Your task to perform on an android device: add a contact in the contacts app Image 0: 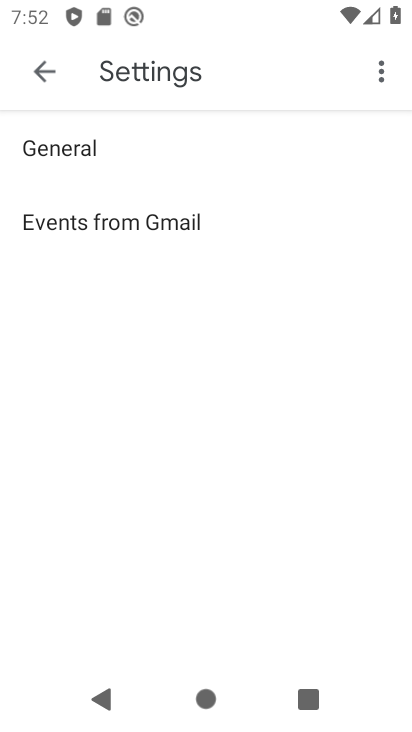
Step 0: press home button
Your task to perform on an android device: add a contact in the contacts app Image 1: 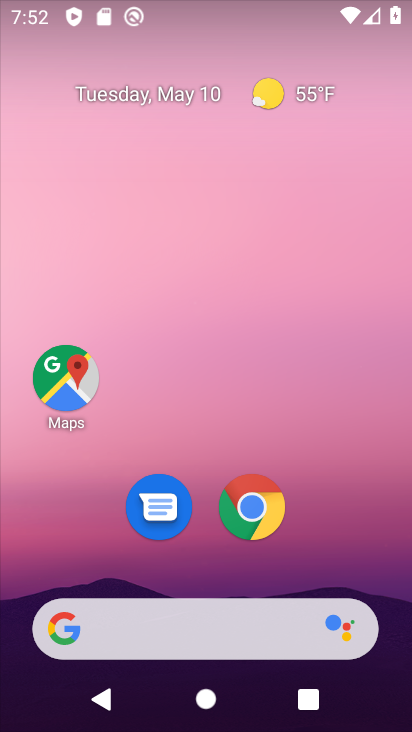
Step 1: drag from (87, 605) to (197, 112)
Your task to perform on an android device: add a contact in the contacts app Image 2: 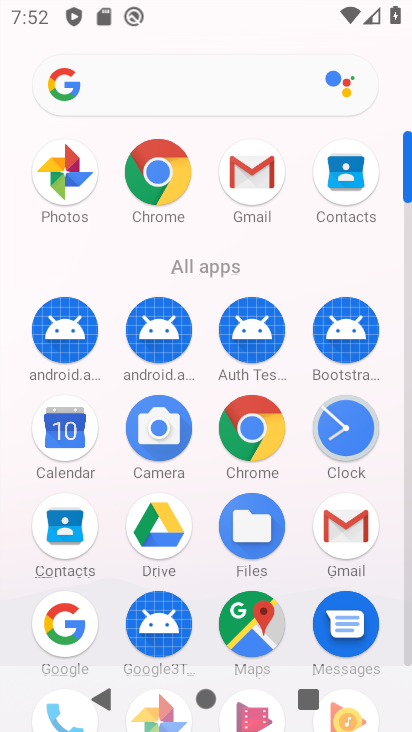
Step 2: drag from (163, 637) to (213, 453)
Your task to perform on an android device: add a contact in the contacts app Image 3: 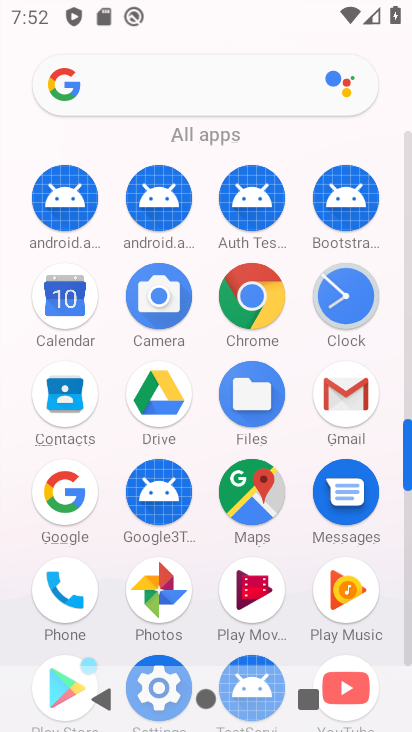
Step 3: click (78, 412)
Your task to perform on an android device: add a contact in the contacts app Image 4: 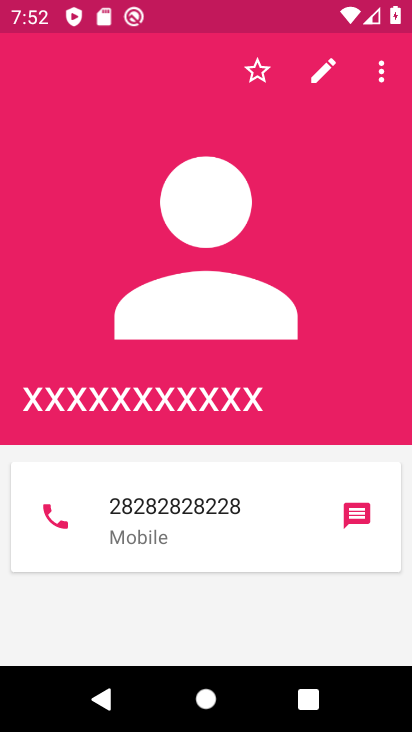
Step 4: press back button
Your task to perform on an android device: add a contact in the contacts app Image 5: 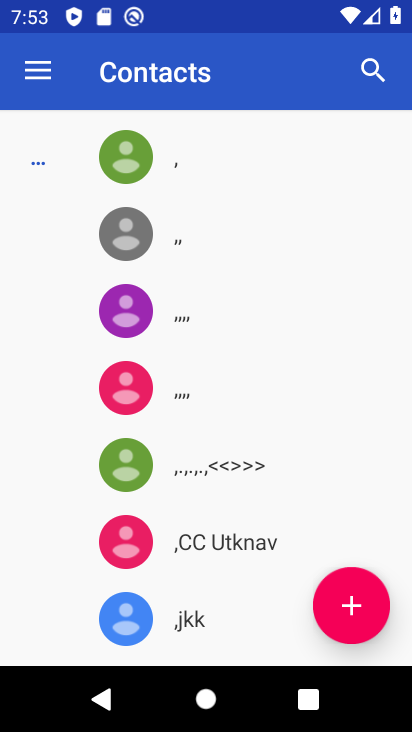
Step 5: click (338, 600)
Your task to perform on an android device: add a contact in the contacts app Image 6: 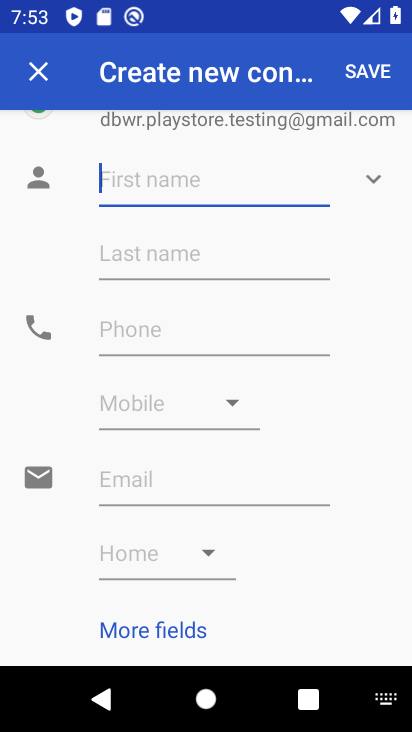
Step 6: type "shshshshs"
Your task to perform on an android device: add a contact in the contacts app Image 7: 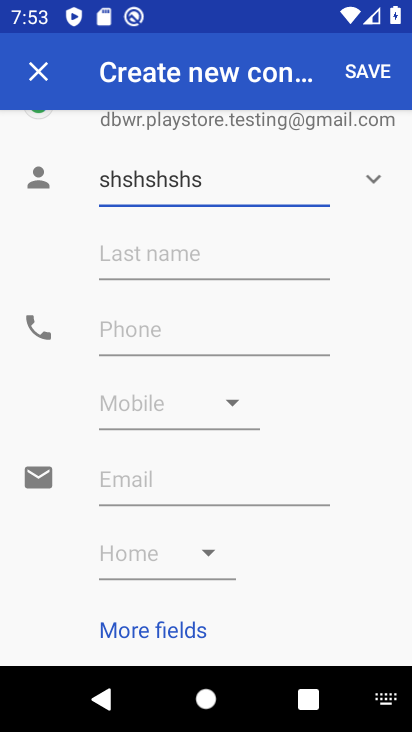
Step 7: click (158, 327)
Your task to perform on an android device: add a contact in the contacts app Image 8: 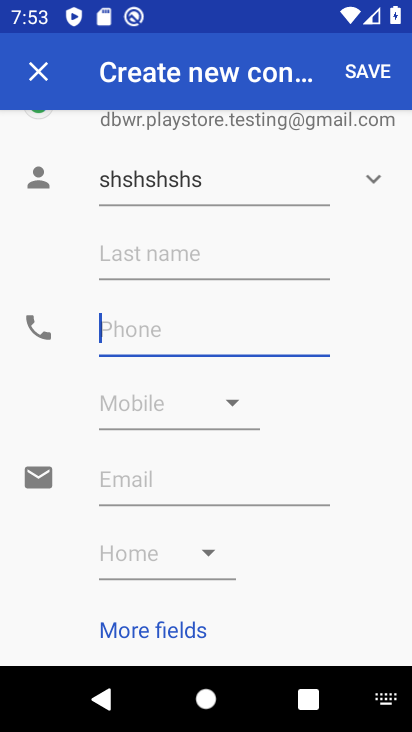
Step 8: type "13113131313"
Your task to perform on an android device: add a contact in the contacts app Image 9: 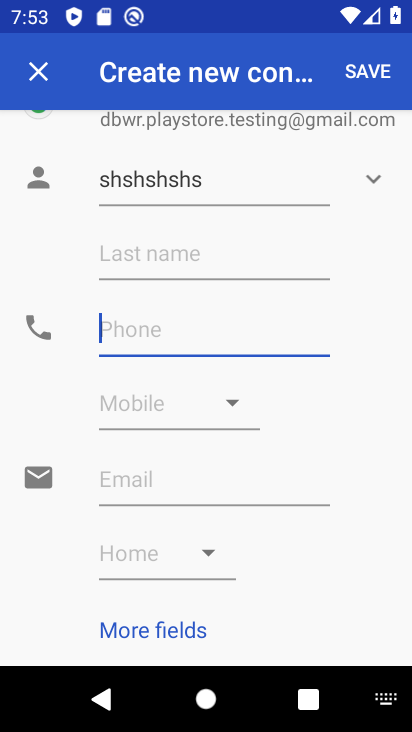
Step 9: click (374, 54)
Your task to perform on an android device: add a contact in the contacts app Image 10: 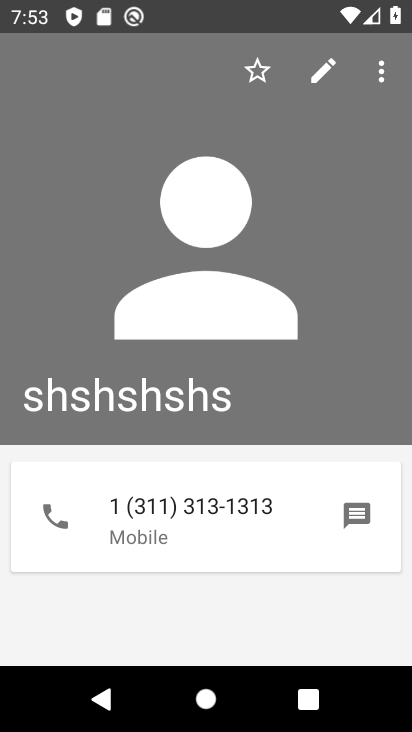
Step 10: task complete